Your task to perform on an android device: set the stopwatch Image 0: 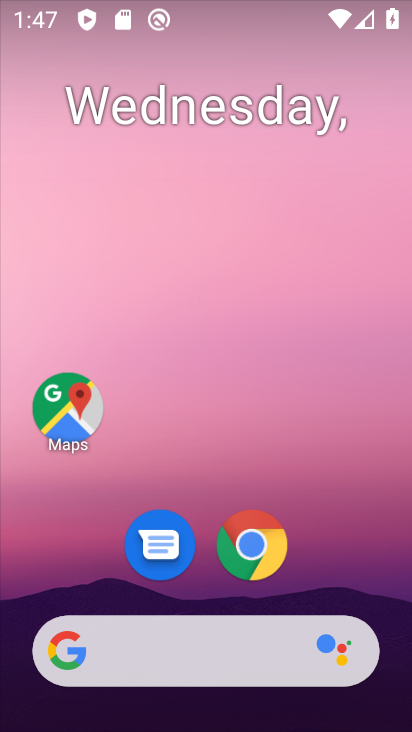
Step 0: drag from (123, 450) to (271, 75)
Your task to perform on an android device: set the stopwatch Image 1: 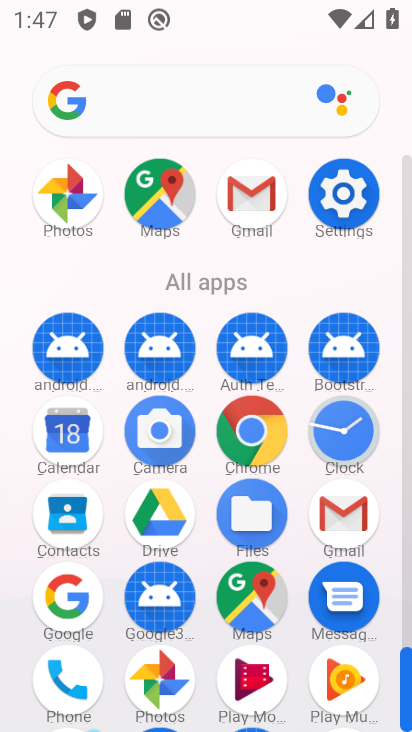
Step 1: click (357, 453)
Your task to perform on an android device: set the stopwatch Image 2: 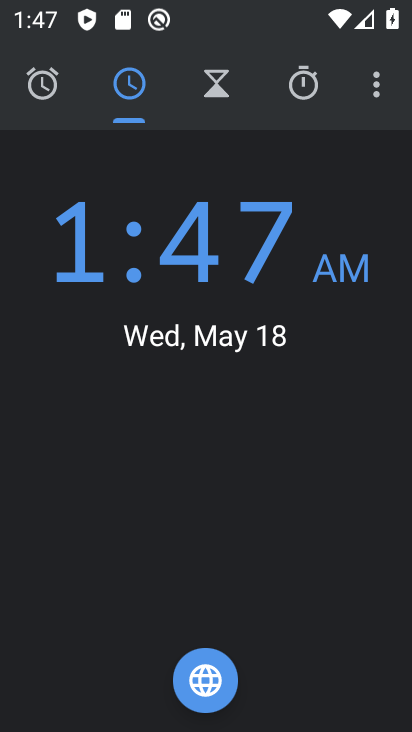
Step 2: click (310, 90)
Your task to perform on an android device: set the stopwatch Image 3: 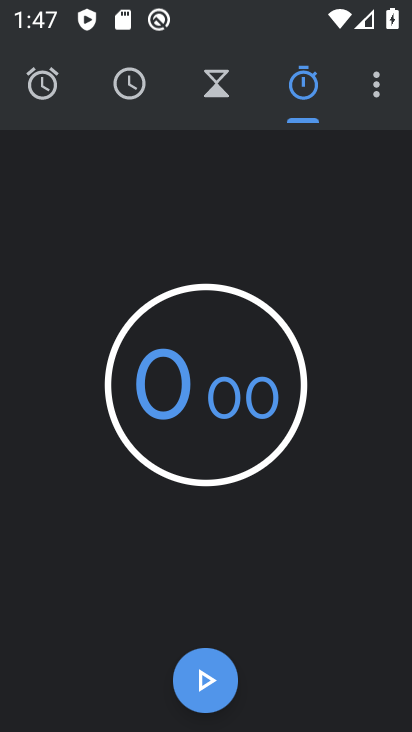
Step 3: click (209, 689)
Your task to perform on an android device: set the stopwatch Image 4: 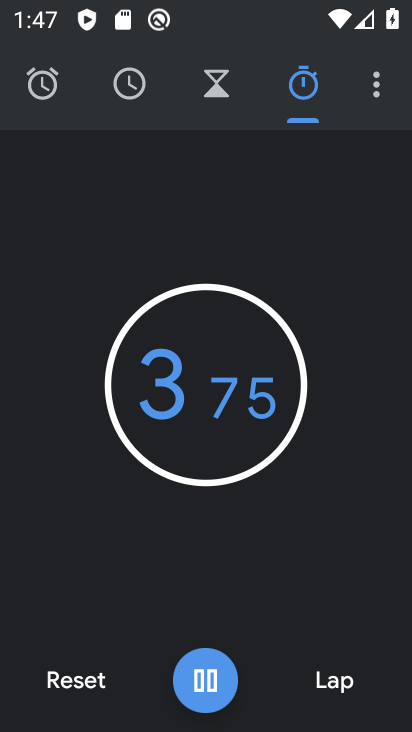
Step 4: task complete